Your task to perform on an android device: clear all cookies in the chrome app Image 0: 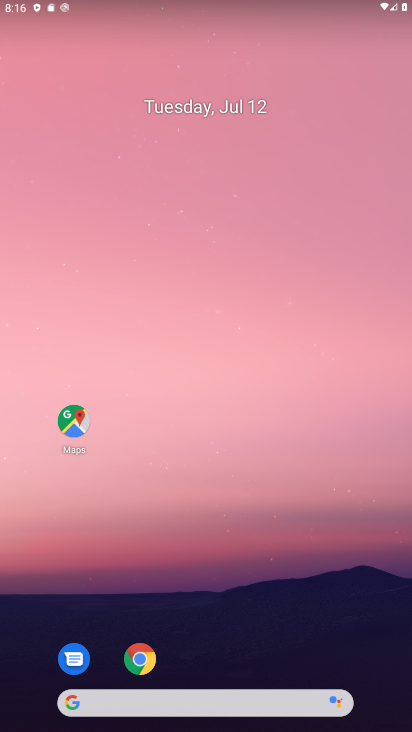
Step 0: click (140, 661)
Your task to perform on an android device: clear all cookies in the chrome app Image 1: 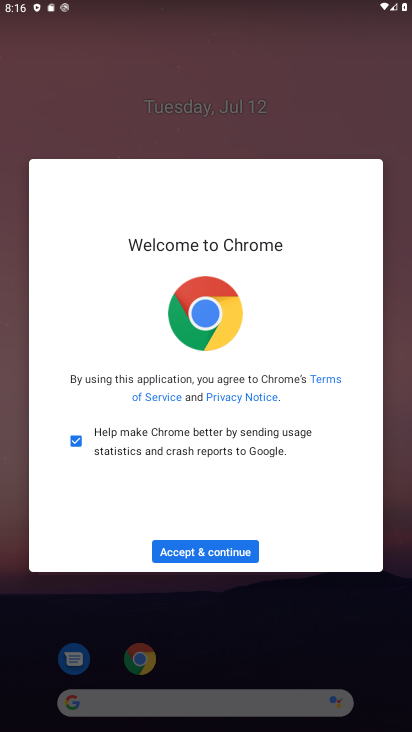
Step 1: click (200, 553)
Your task to perform on an android device: clear all cookies in the chrome app Image 2: 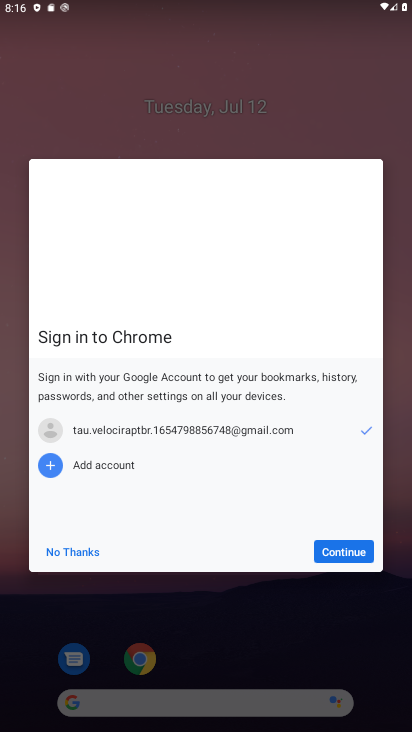
Step 2: click (337, 552)
Your task to perform on an android device: clear all cookies in the chrome app Image 3: 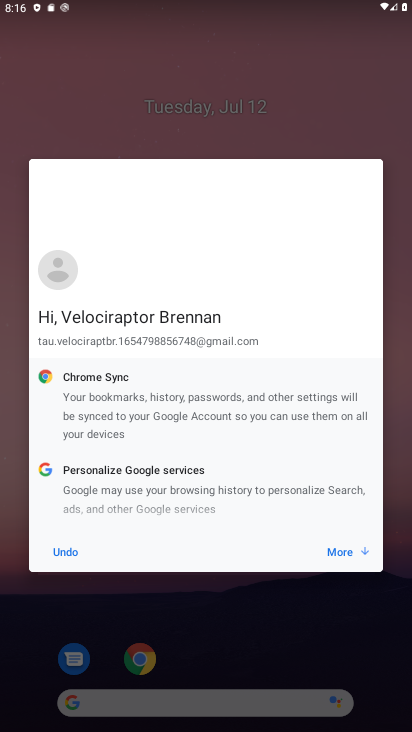
Step 3: click (339, 555)
Your task to perform on an android device: clear all cookies in the chrome app Image 4: 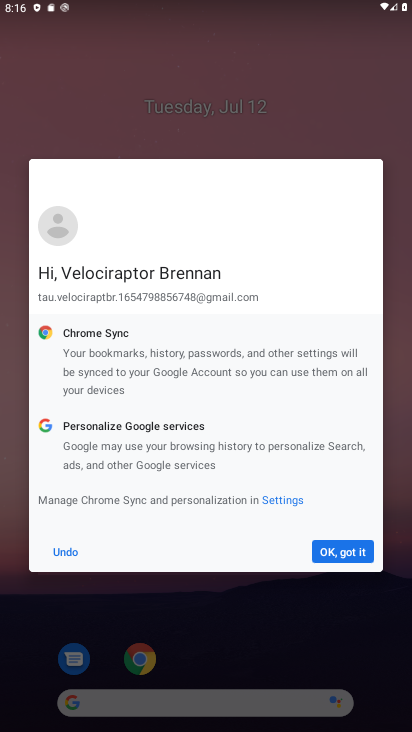
Step 4: click (339, 555)
Your task to perform on an android device: clear all cookies in the chrome app Image 5: 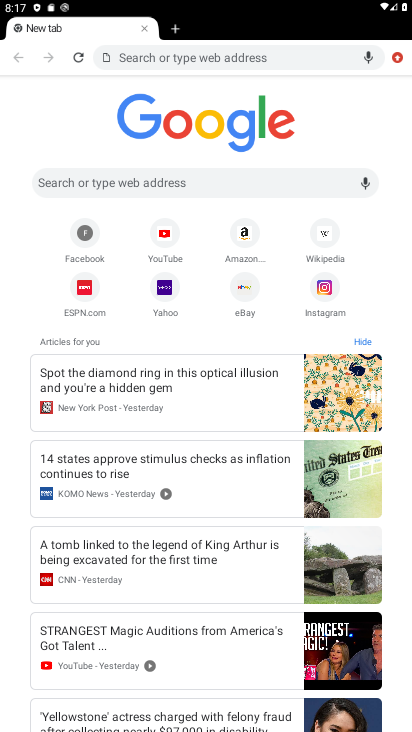
Step 5: click (397, 57)
Your task to perform on an android device: clear all cookies in the chrome app Image 6: 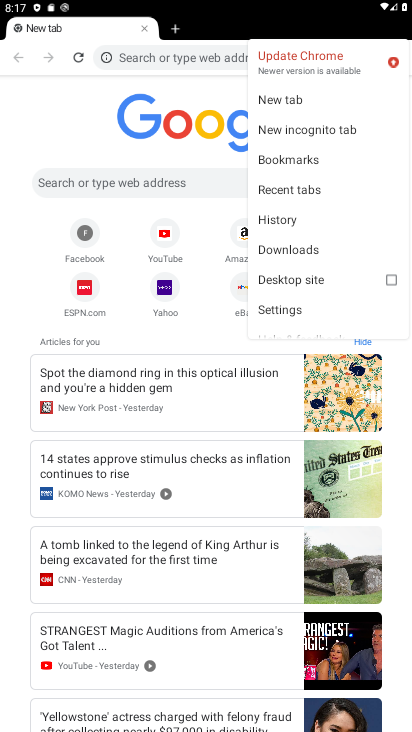
Step 6: click (284, 309)
Your task to perform on an android device: clear all cookies in the chrome app Image 7: 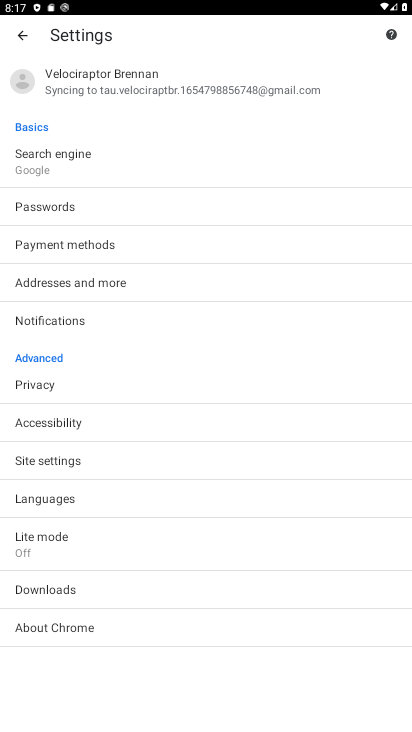
Step 7: click (47, 385)
Your task to perform on an android device: clear all cookies in the chrome app Image 8: 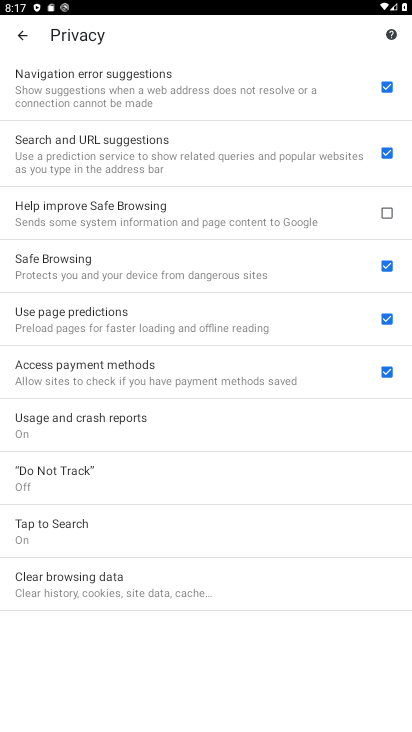
Step 8: click (50, 578)
Your task to perform on an android device: clear all cookies in the chrome app Image 9: 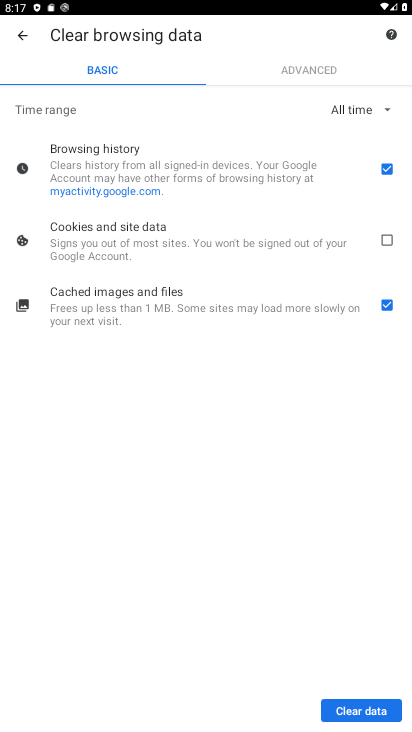
Step 9: click (388, 298)
Your task to perform on an android device: clear all cookies in the chrome app Image 10: 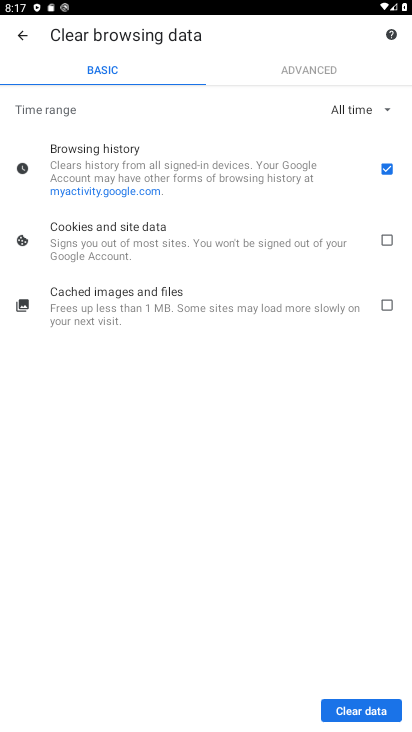
Step 10: click (386, 231)
Your task to perform on an android device: clear all cookies in the chrome app Image 11: 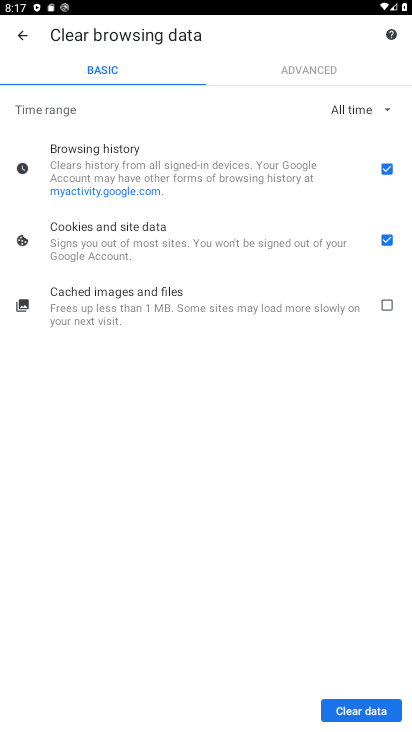
Step 11: click (389, 172)
Your task to perform on an android device: clear all cookies in the chrome app Image 12: 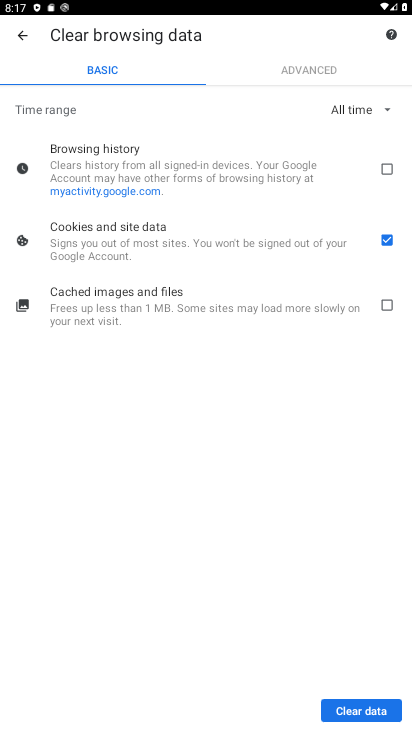
Step 12: click (357, 708)
Your task to perform on an android device: clear all cookies in the chrome app Image 13: 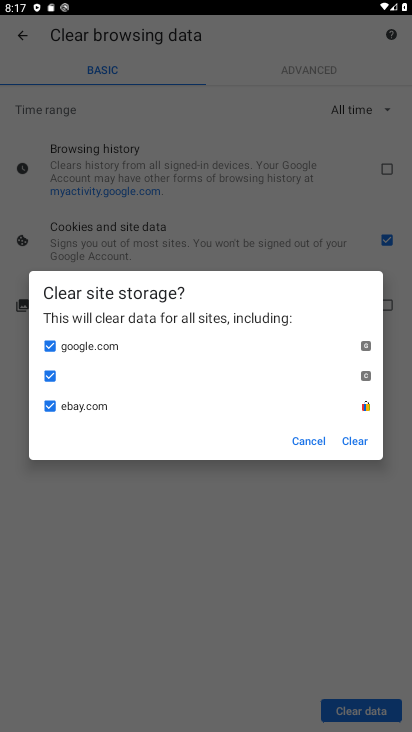
Step 13: click (357, 442)
Your task to perform on an android device: clear all cookies in the chrome app Image 14: 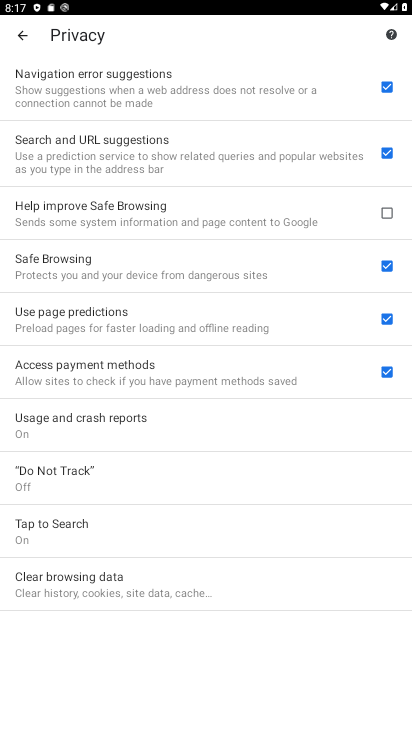
Step 14: task complete